Your task to perform on an android device: Go to network settings Image 0: 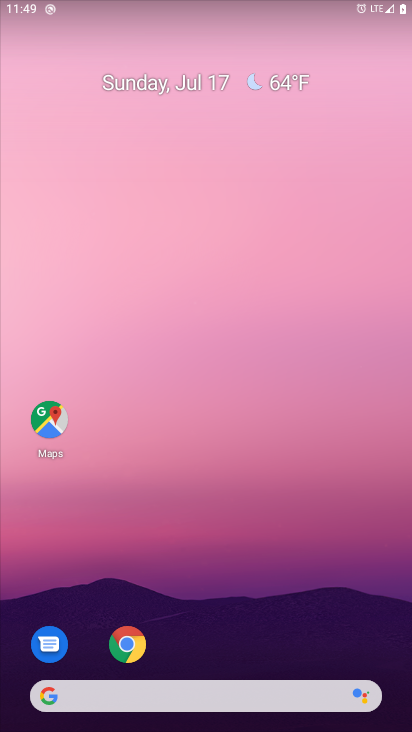
Step 0: press home button
Your task to perform on an android device: Go to network settings Image 1: 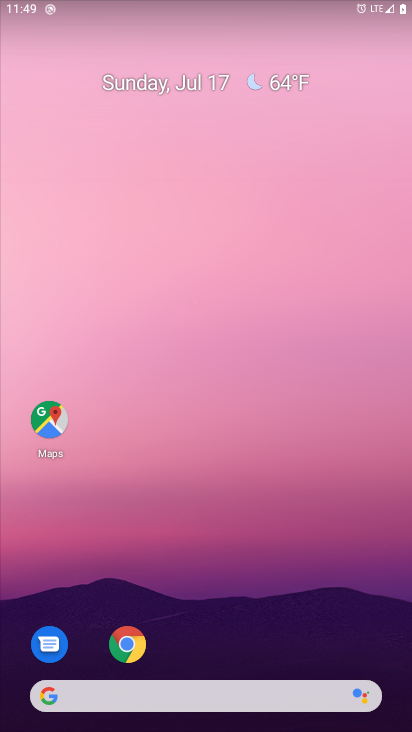
Step 1: drag from (331, 302) to (350, 92)
Your task to perform on an android device: Go to network settings Image 2: 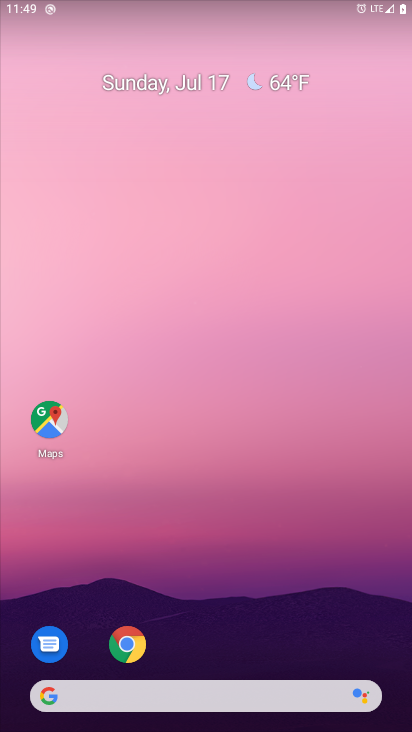
Step 2: drag from (214, 610) to (396, 63)
Your task to perform on an android device: Go to network settings Image 3: 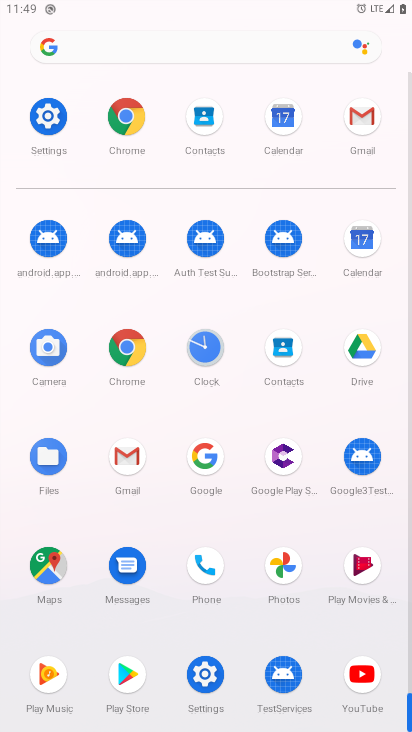
Step 3: click (54, 116)
Your task to perform on an android device: Go to network settings Image 4: 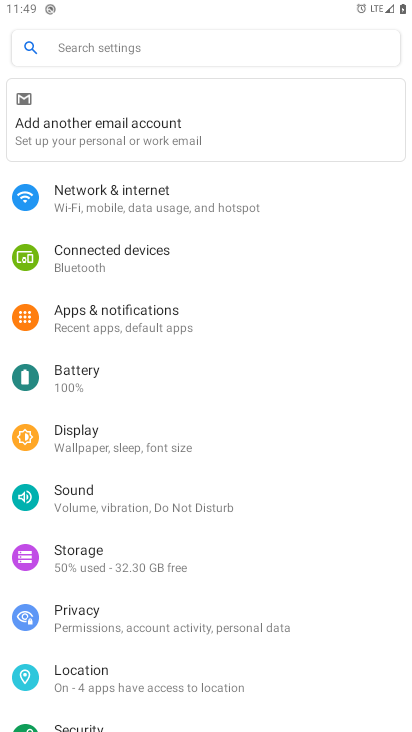
Step 4: click (106, 189)
Your task to perform on an android device: Go to network settings Image 5: 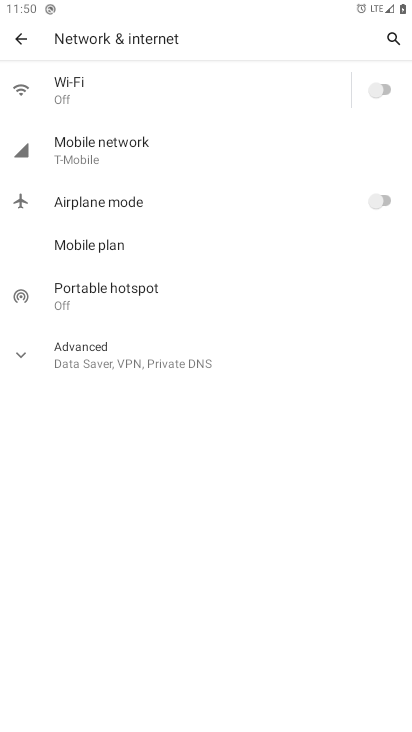
Step 5: click (91, 144)
Your task to perform on an android device: Go to network settings Image 6: 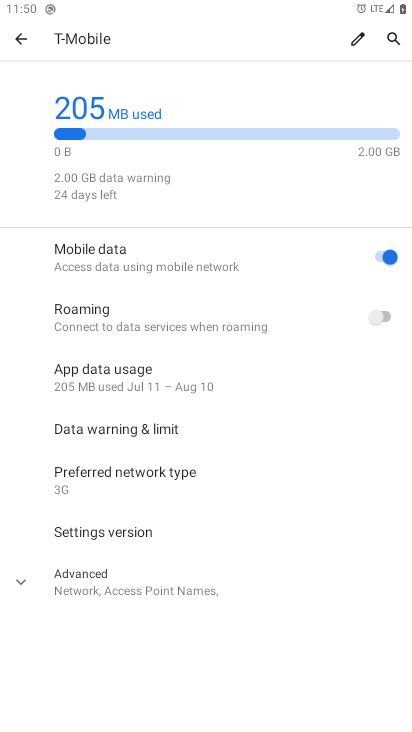
Step 6: task complete